Your task to perform on an android device: turn on data saver in the chrome app Image 0: 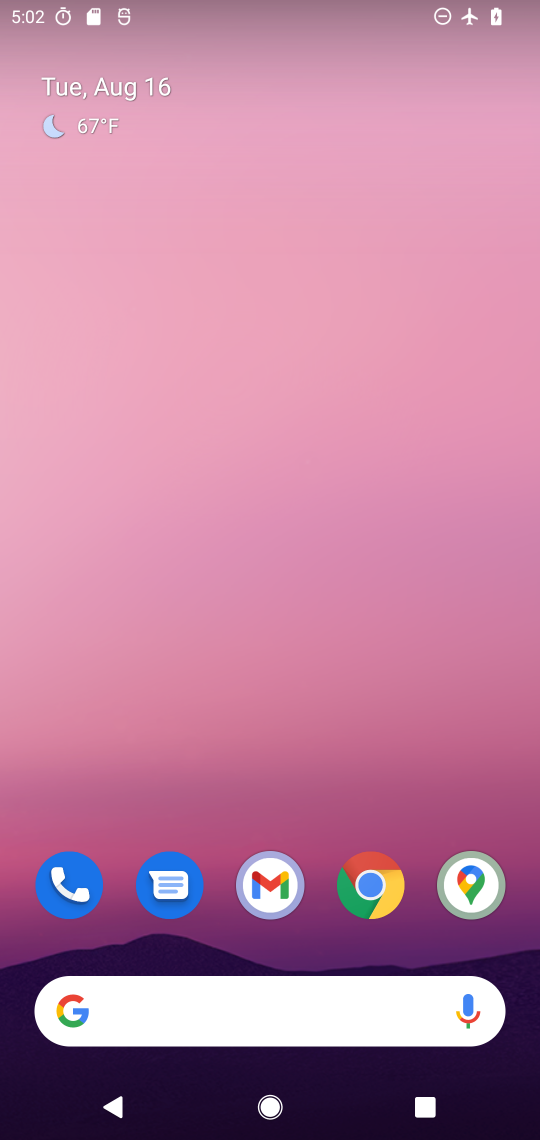
Step 0: drag from (244, 977) to (269, 388)
Your task to perform on an android device: turn on data saver in the chrome app Image 1: 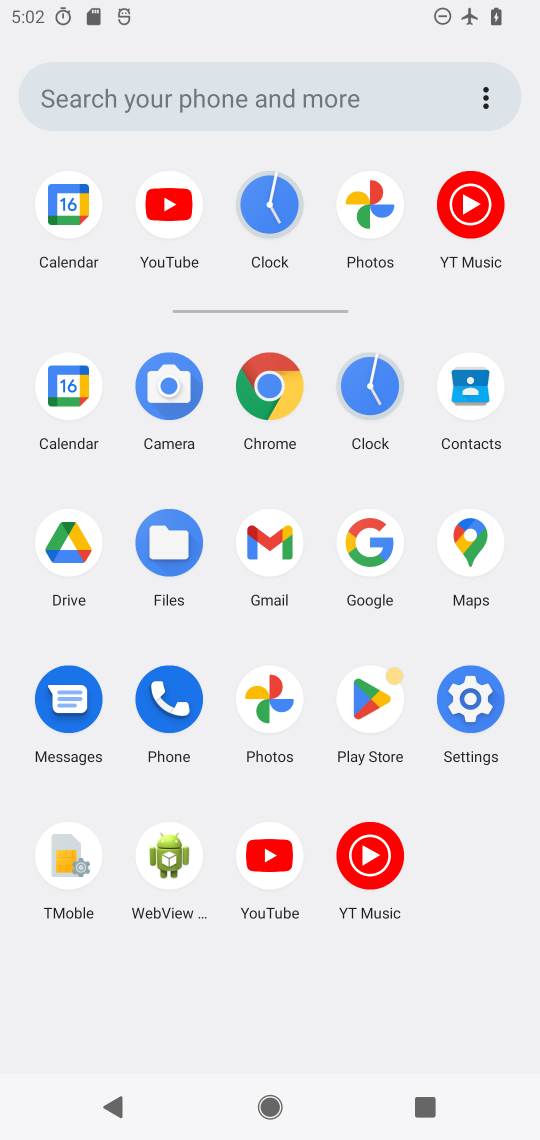
Step 1: click (279, 377)
Your task to perform on an android device: turn on data saver in the chrome app Image 2: 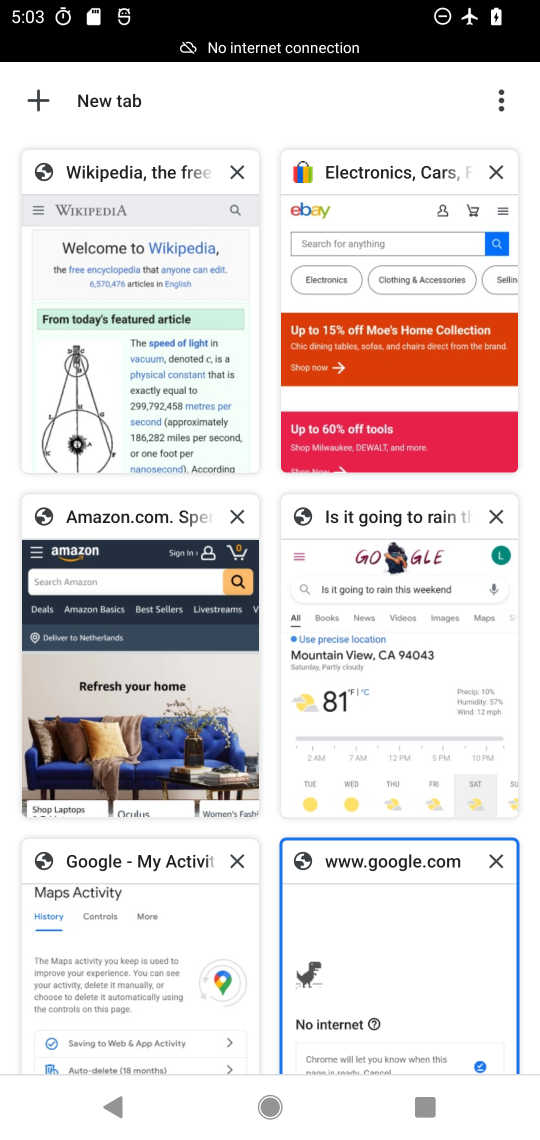
Step 2: task complete